Your task to perform on an android device: toggle airplane mode Image 0: 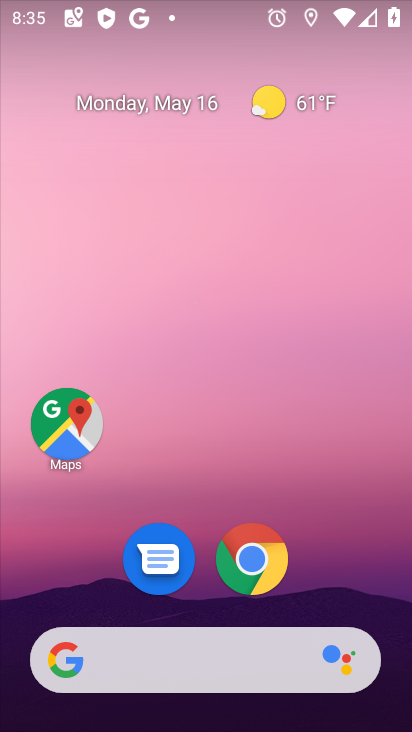
Step 0: drag from (367, 592) to (340, 103)
Your task to perform on an android device: toggle airplane mode Image 1: 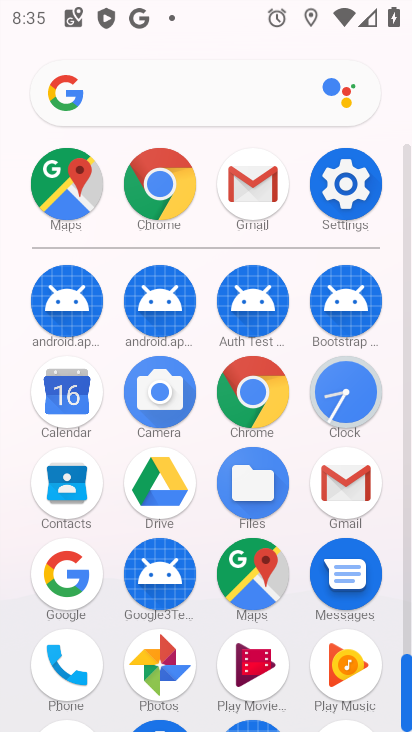
Step 1: click (369, 192)
Your task to perform on an android device: toggle airplane mode Image 2: 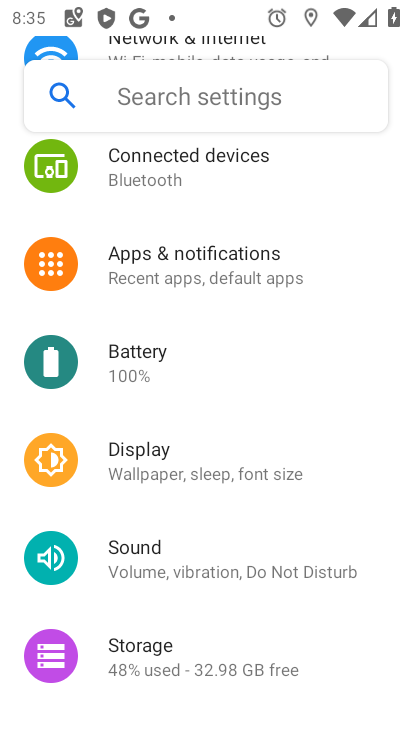
Step 2: drag from (307, 227) to (287, 591)
Your task to perform on an android device: toggle airplane mode Image 3: 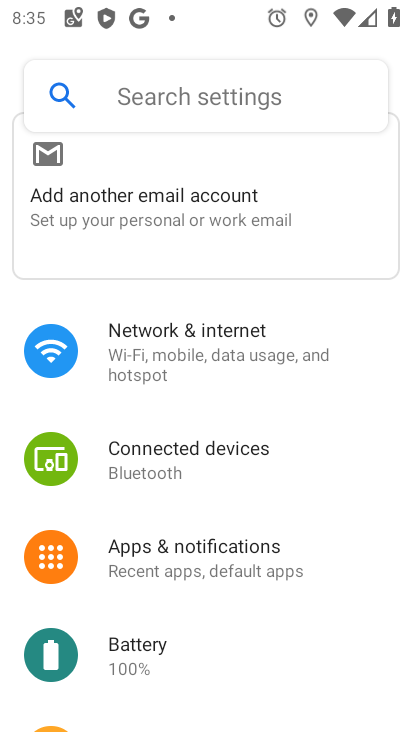
Step 3: click (224, 332)
Your task to perform on an android device: toggle airplane mode Image 4: 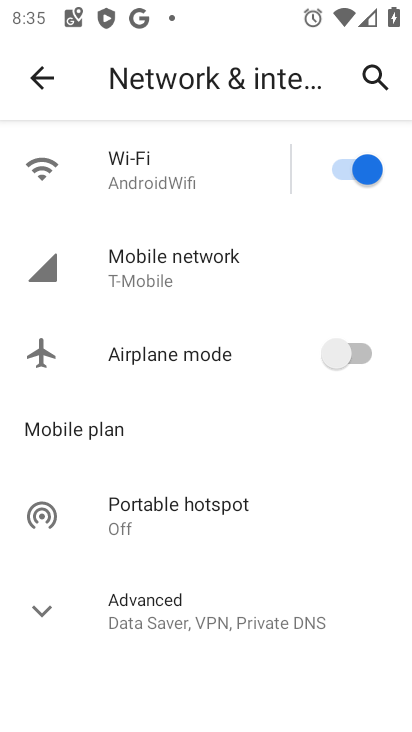
Step 4: click (372, 357)
Your task to perform on an android device: toggle airplane mode Image 5: 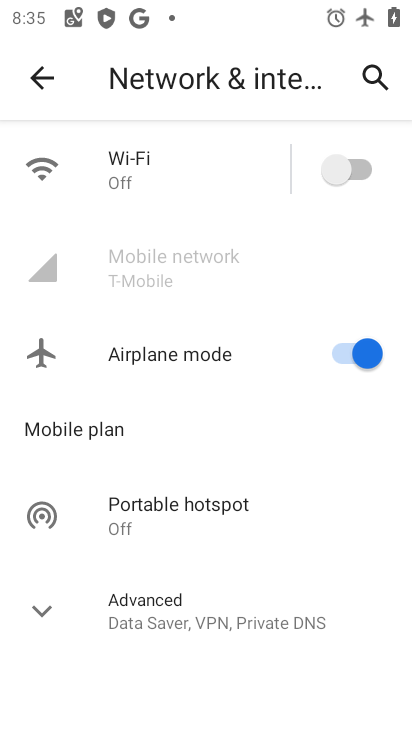
Step 5: task complete